Your task to perform on an android device: Search for Italian restaurants on Maps Image 0: 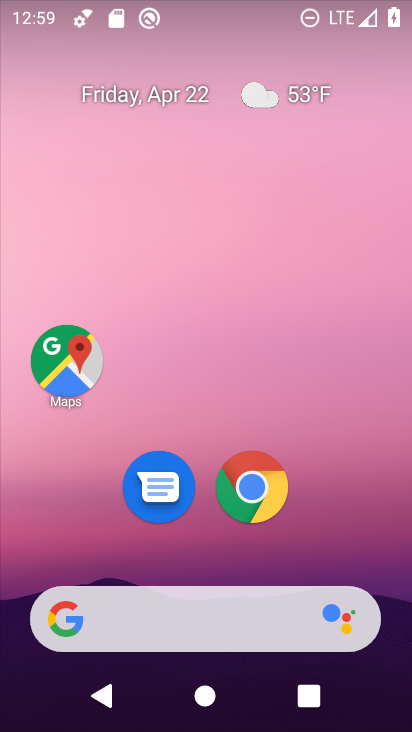
Step 0: click (85, 366)
Your task to perform on an android device: Search for Italian restaurants on Maps Image 1: 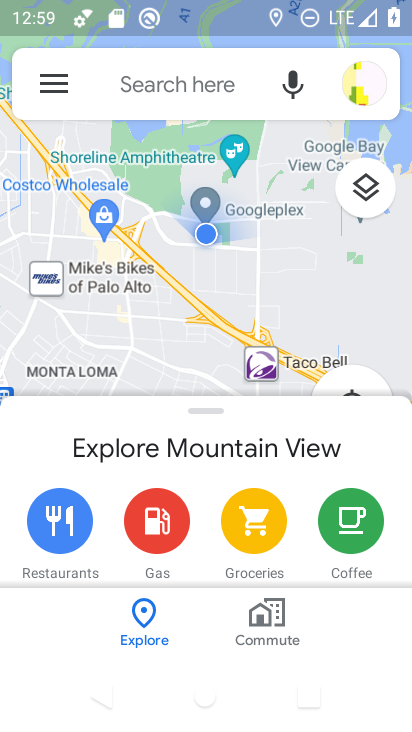
Step 1: click (172, 103)
Your task to perform on an android device: Search for Italian restaurants on Maps Image 2: 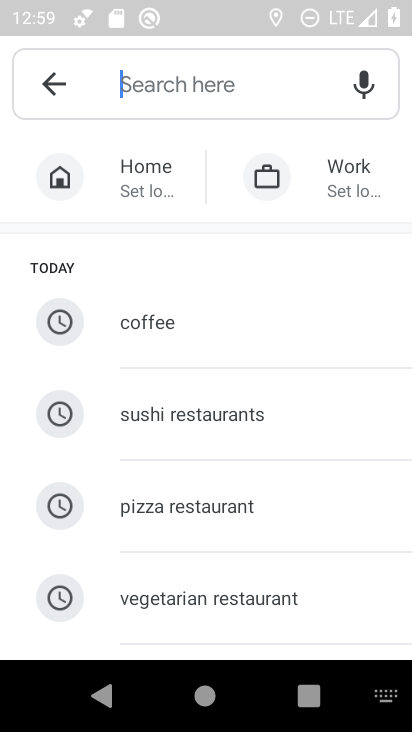
Step 2: drag from (165, 638) to (175, 236)
Your task to perform on an android device: Search for Italian restaurants on Maps Image 3: 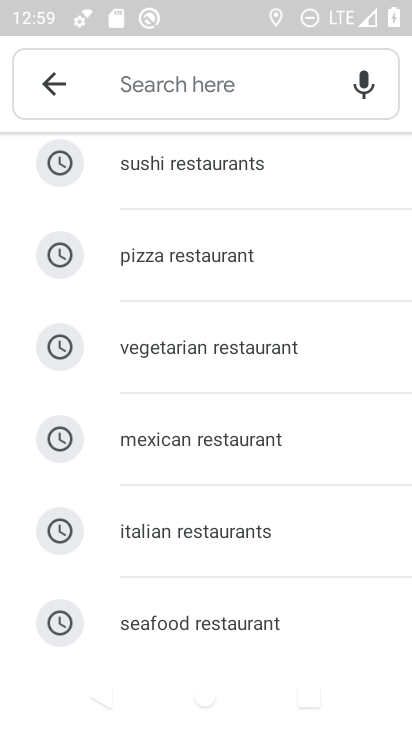
Step 3: click (130, 554)
Your task to perform on an android device: Search for Italian restaurants on Maps Image 4: 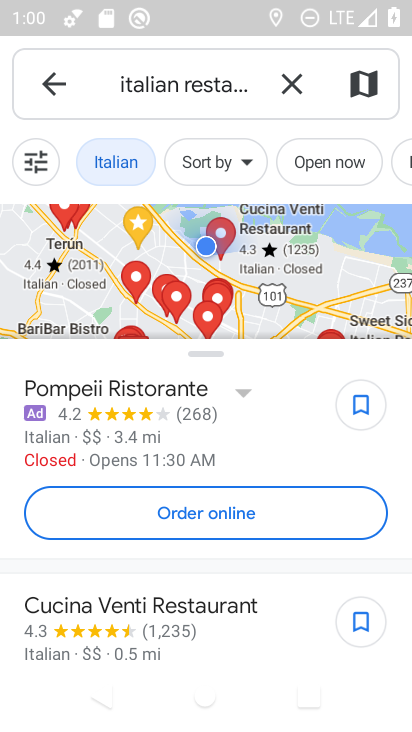
Step 4: task complete